Your task to perform on an android device: Open Amazon Image 0: 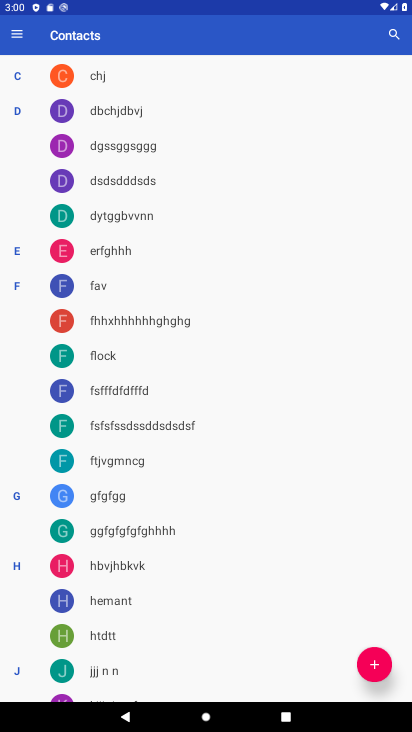
Step 0: press home button
Your task to perform on an android device: Open Amazon Image 1: 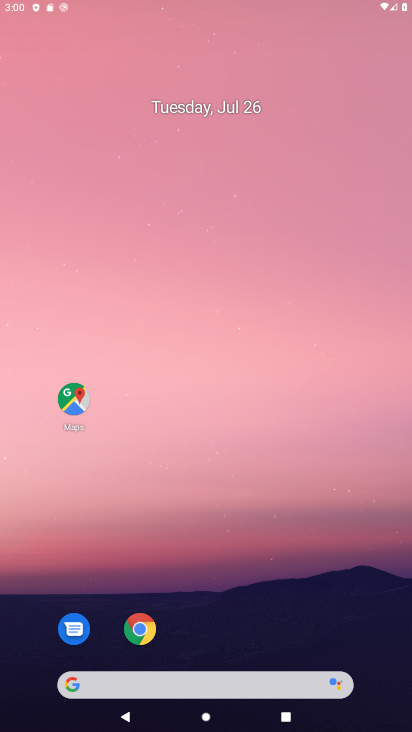
Step 1: drag from (358, 597) to (325, 130)
Your task to perform on an android device: Open Amazon Image 2: 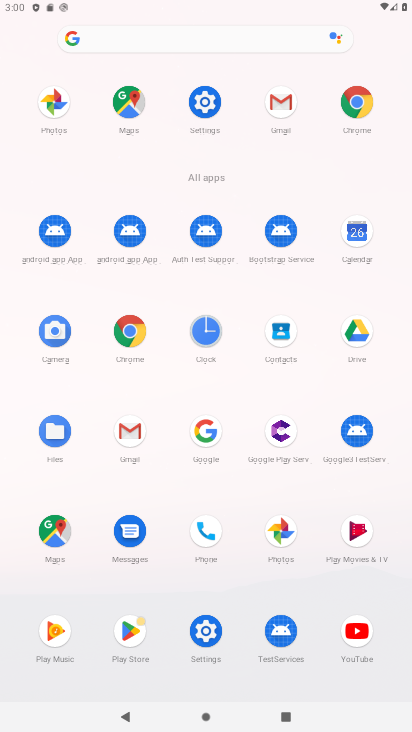
Step 2: click (345, 130)
Your task to perform on an android device: Open Amazon Image 3: 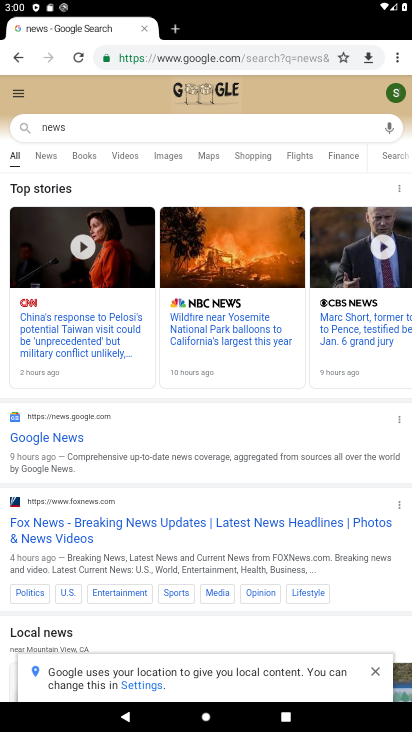
Step 3: click (191, 65)
Your task to perform on an android device: Open Amazon Image 4: 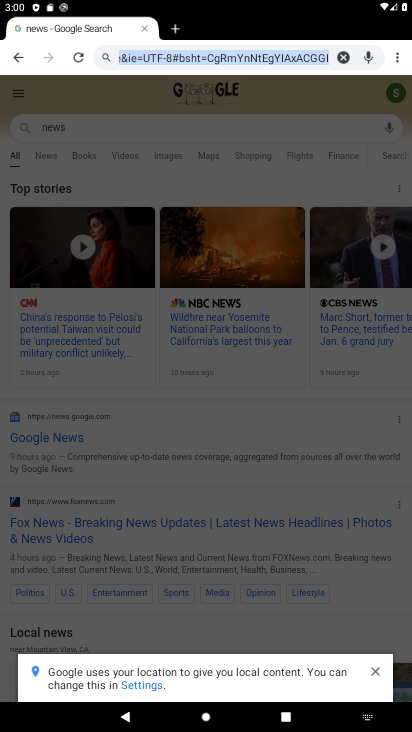
Step 4: type "Amazon"
Your task to perform on an android device: Open Amazon Image 5: 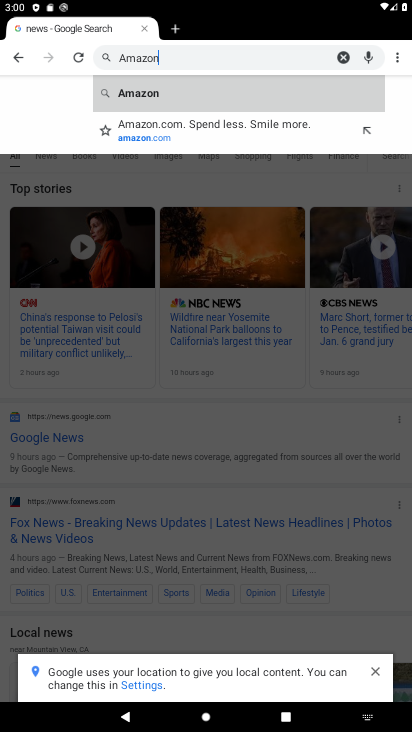
Step 5: type ""
Your task to perform on an android device: Open Amazon Image 6: 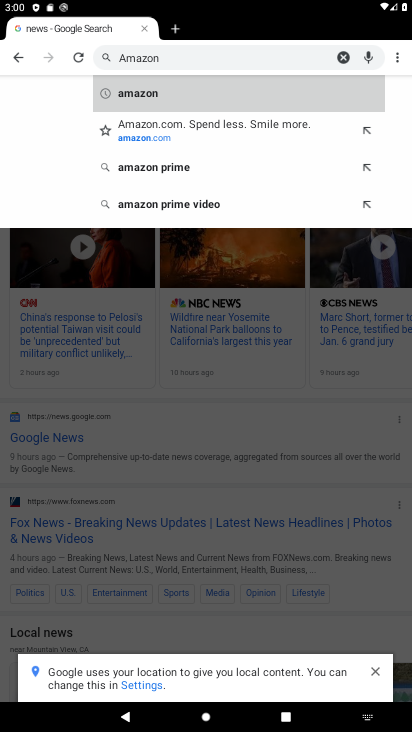
Step 6: click (164, 139)
Your task to perform on an android device: Open Amazon Image 7: 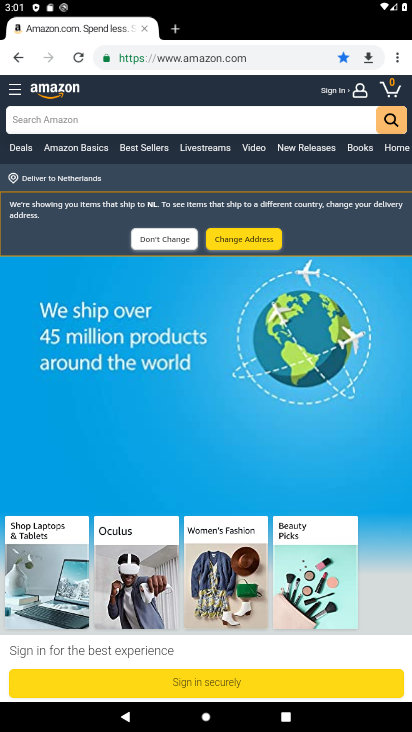
Step 7: task complete